Your task to perform on an android device: open app "TextNow: Call + Text Unlimited" Image 0: 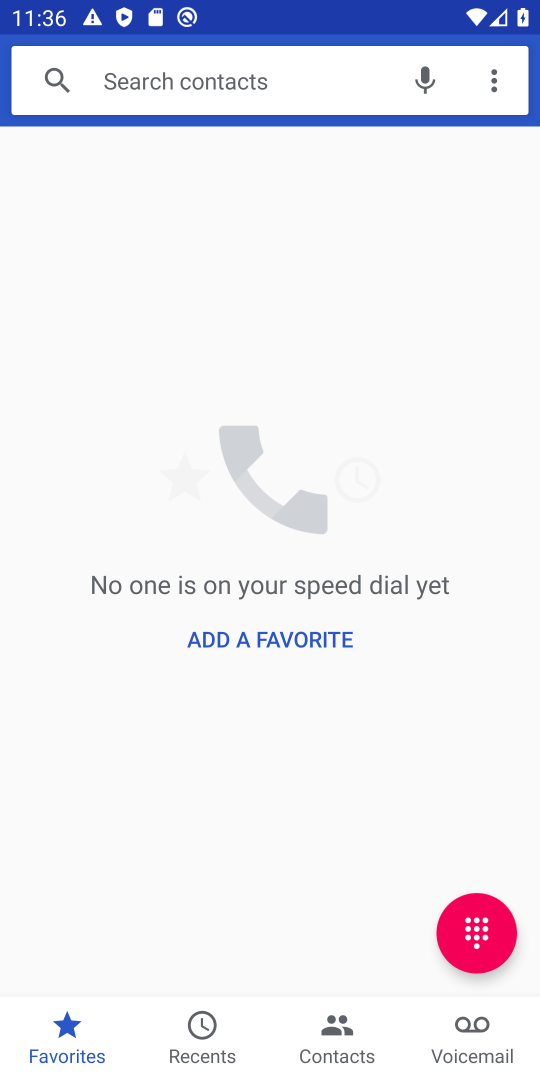
Step 0: press home button
Your task to perform on an android device: open app "TextNow: Call + Text Unlimited" Image 1: 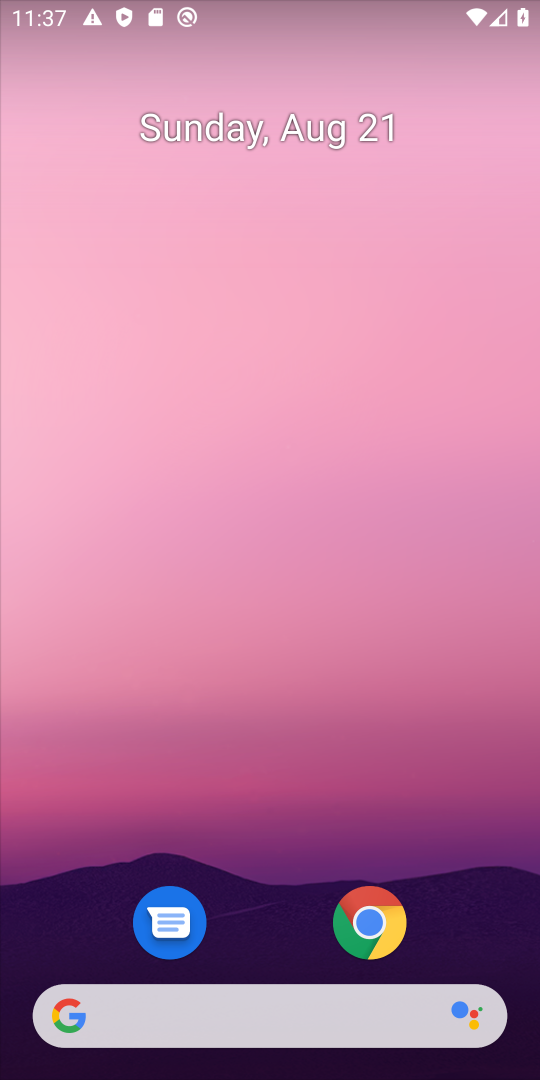
Step 1: drag from (284, 970) to (320, 126)
Your task to perform on an android device: open app "TextNow: Call + Text Unlimited" Image 2: 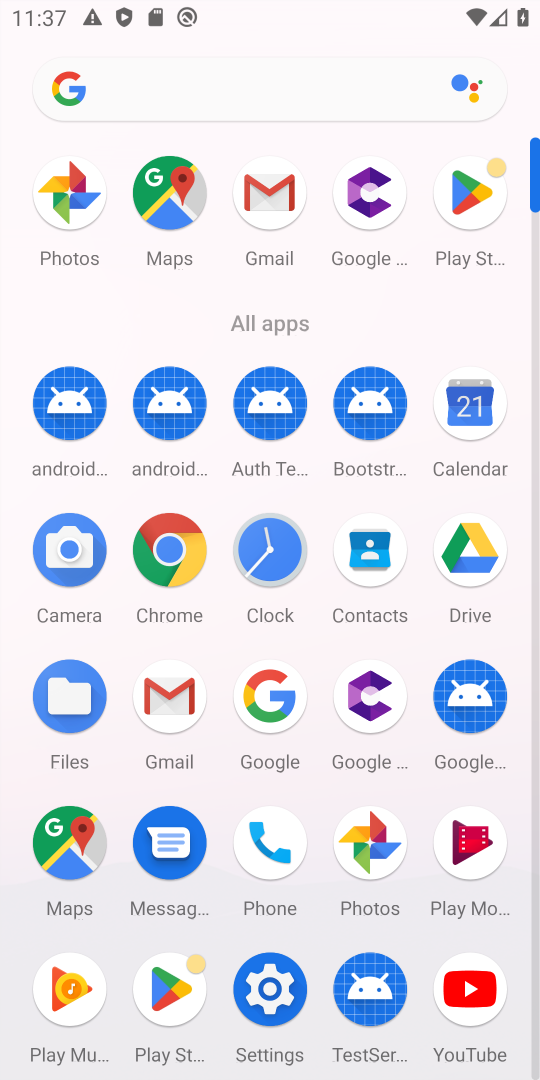
Step 2: click (177, 972)
Your task to perform on an android device: open app "TextNow: Call + Text Unlimited" Image 3: 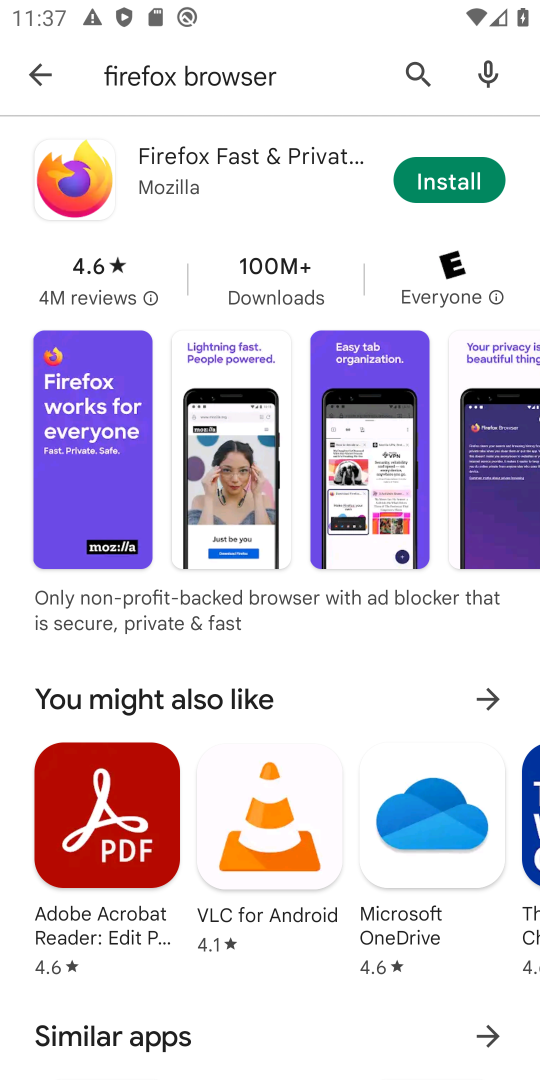
Step 3: click (40, 68)
Your task to perform on an android device: open app "TextNow: Call + Text Unlimited" Image 4: 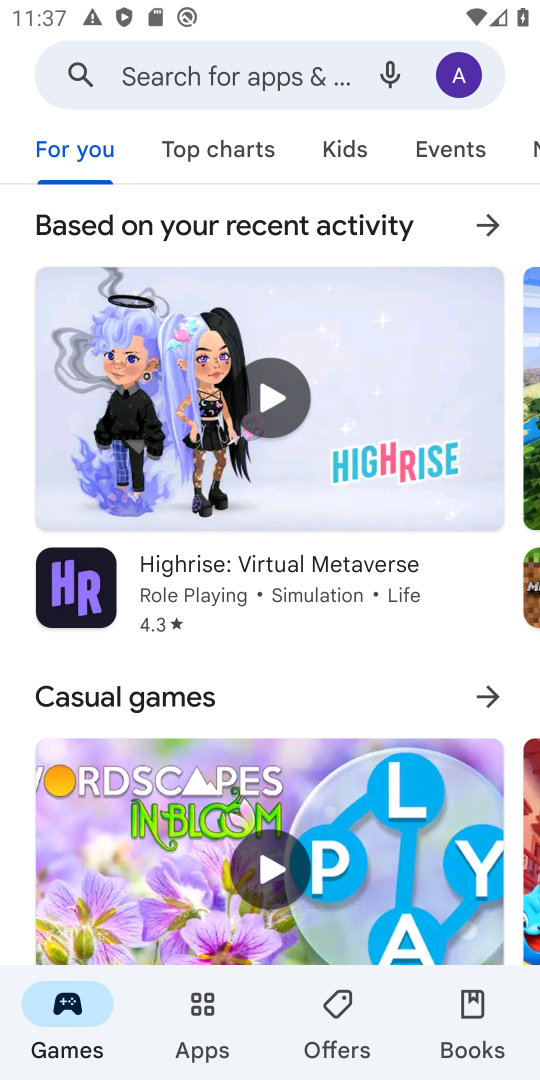
Step 4: click (146, 71)
Your task to perform on an android device: open app "TextNow: Call + Text Unlimited" Image 5: 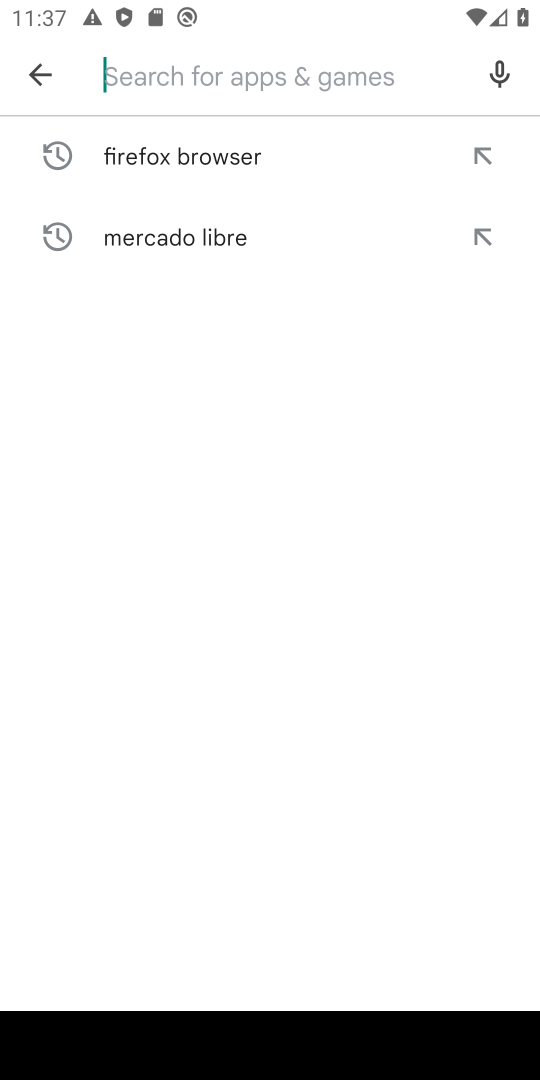
Step 5: drag from (169, 1079) to (424, 1079)
Your task to perform on an android device: open app "TextNow: Call + Text Unlimited" Image 6: 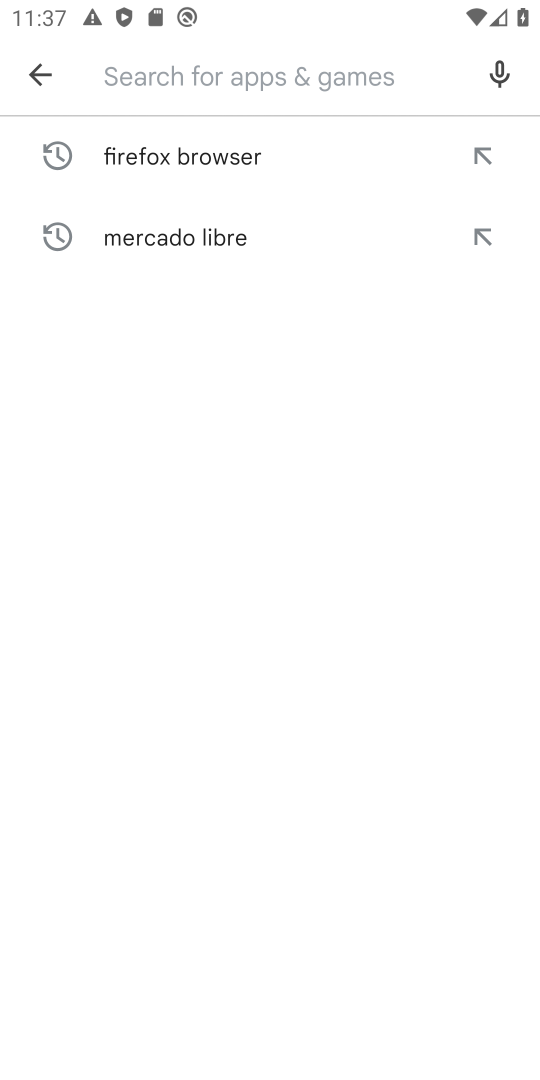
Step 6: type "TextNow: Call + Text Unlimited"
Your task to perform on an android device: open app "TextNow: Call + Text Unlimited" Image 7: 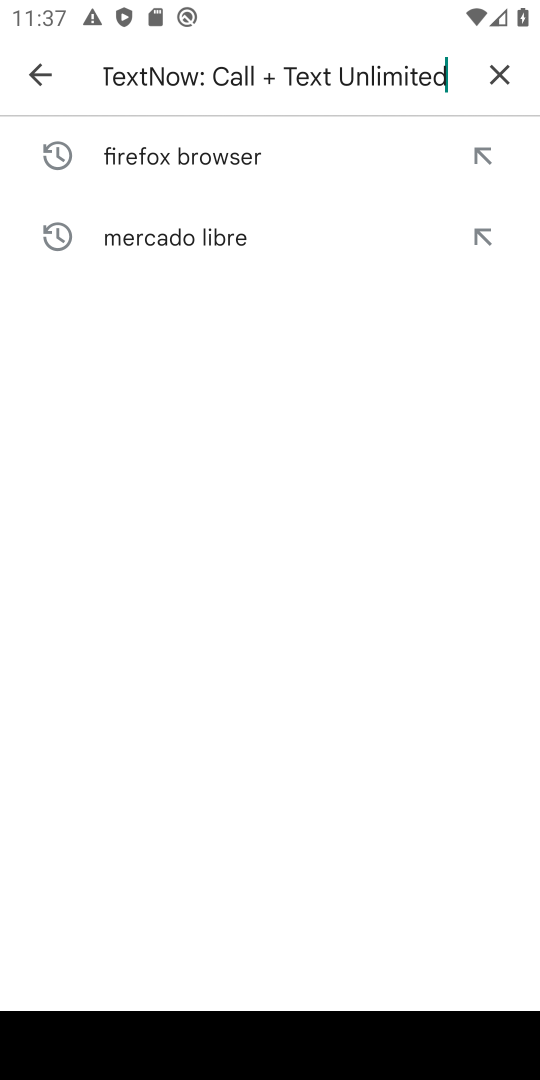
Step 7: drag from (424, 1079) to (537, 288)
Your task to perform on an android device: open app "TextNow: Call + Text Unlimited" Image 8: 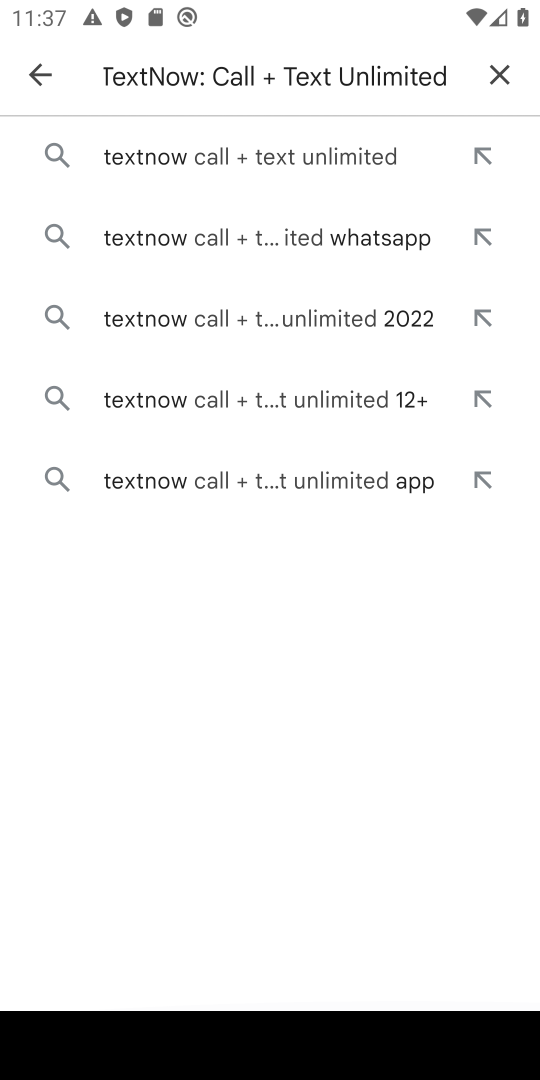
Step 8: click (210, 149)
Your task to perform on an android device: open app "TextNow: Call + Text Unlimited" Image 9: 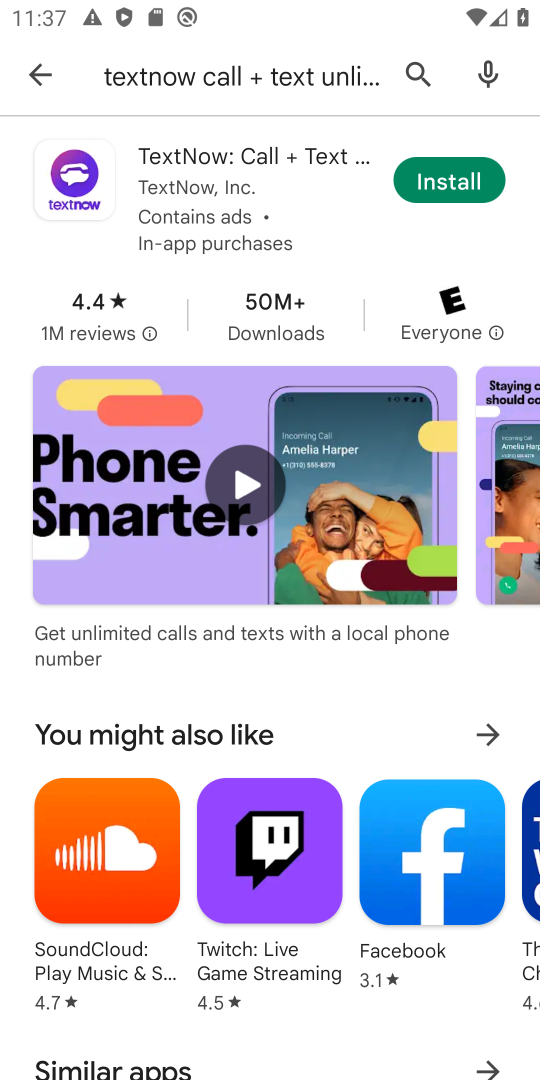
Step 9: task complete